Your task to perform on an android device: Open Wikipedia Image 0: 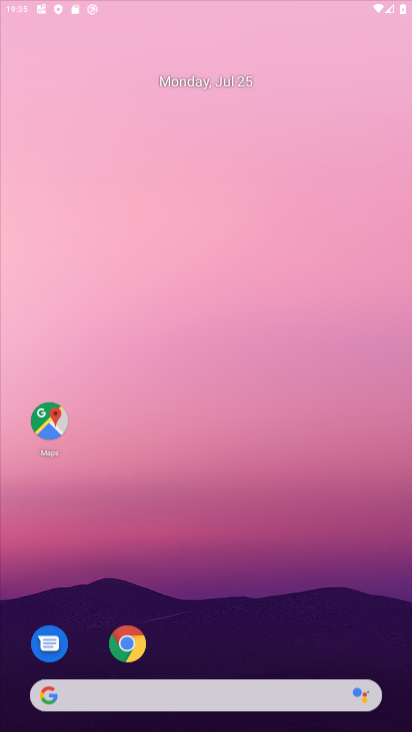
Step 0: press home button
Your task to perform on an android device: Open Wikipedia Image 1: 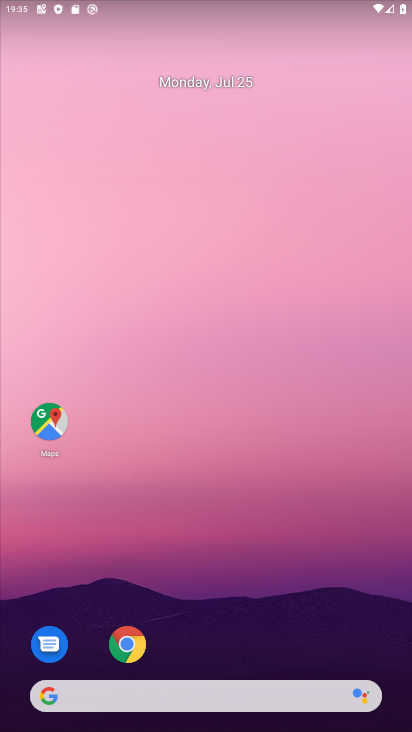
Step 1: click (122, 640)
Your task to perform on an android device: Open Wikipedia Image 2: 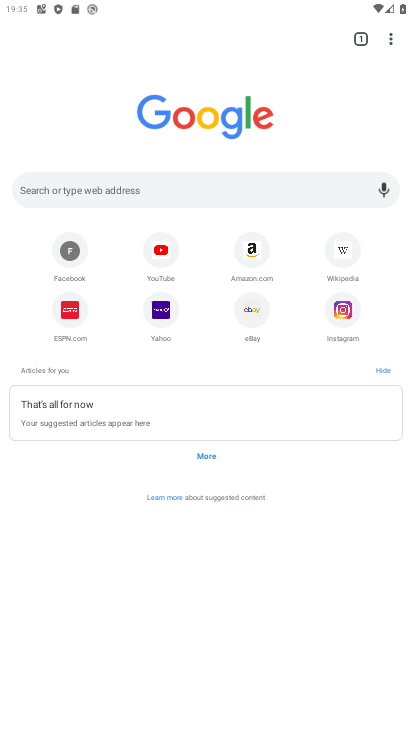
Step 2: click (341, 247)
Your task to perform on an android device: Open Wikipedia Image 3: 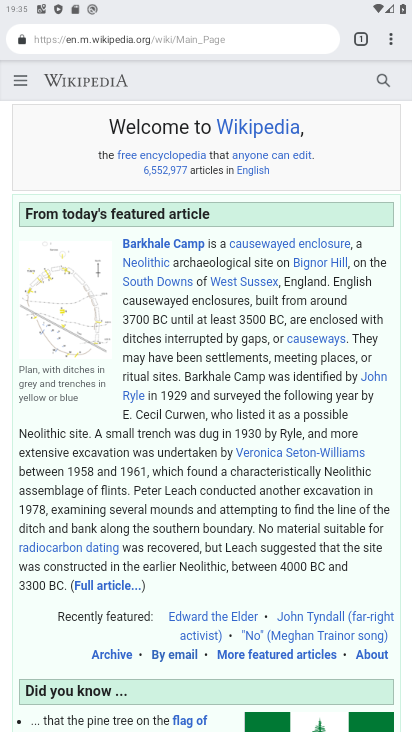
Step 3: task complete